Your task to perform on an android device: turn off priority inbox in the gmail app Image 0: 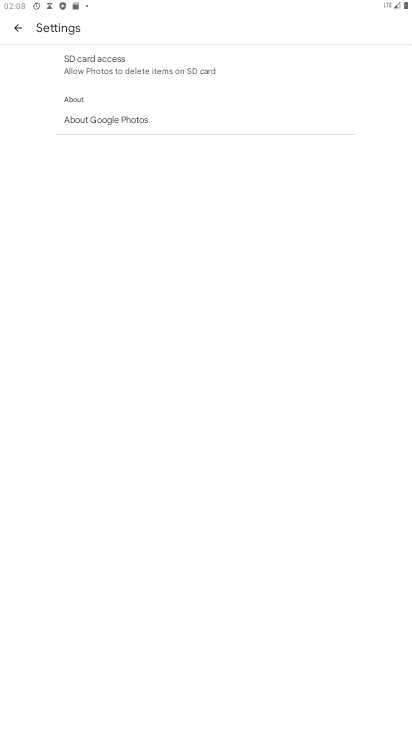
Step 0: press home button
Your task to perform on an android device: turn off priority inbox in the gmail app Image 1: 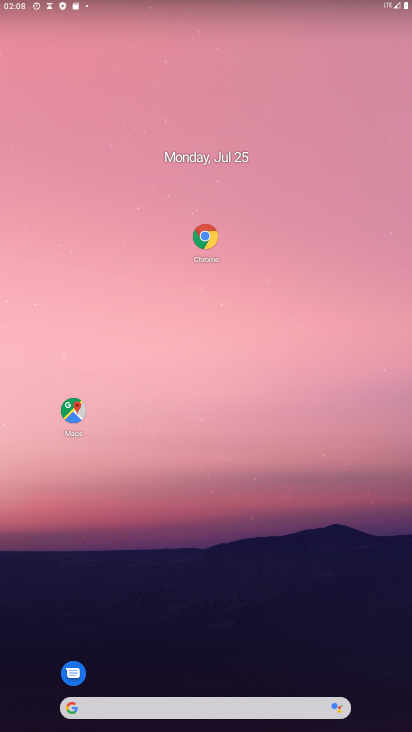
Step 1: click (262, 669)
Your task to perform on an android device: turn off priority inbox in the gmail app Image 2: 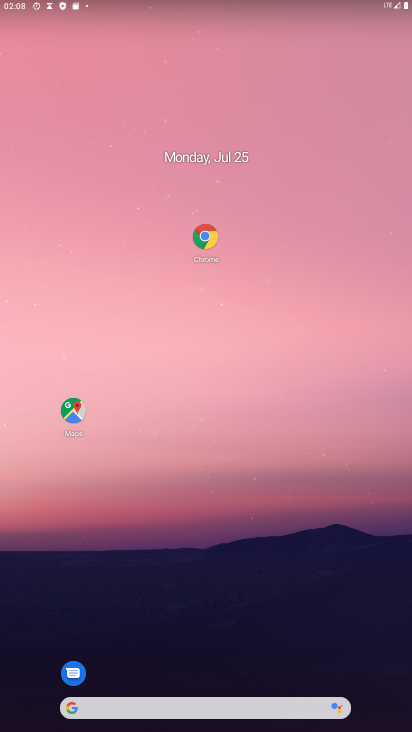
Step 2: drag from (250, 621) to (313, 11)
Your task to perform on an android device: turn off priority inbox in the gmail app Image 3: 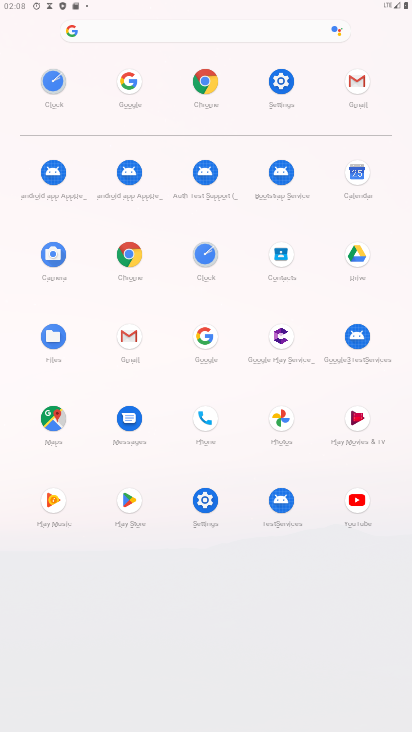
Step 3: click (130, 334)
Your task to perform on an android device: turn off priority inbox in the gmail app Image 4: 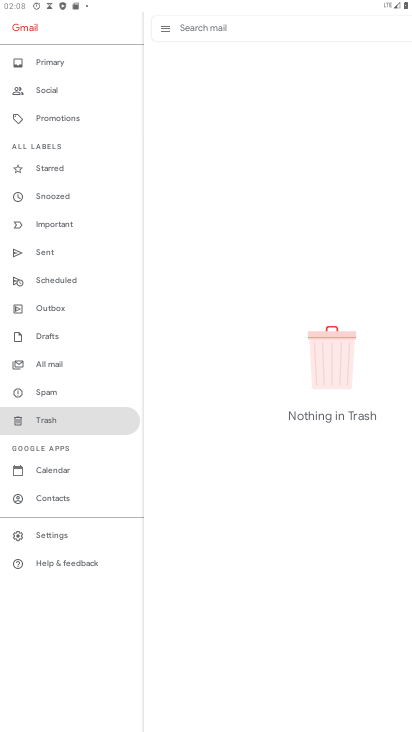
Step 4: click (58, 535)
Your task to perform on an android device: turn off priority inbox in the gmail app Image 5: 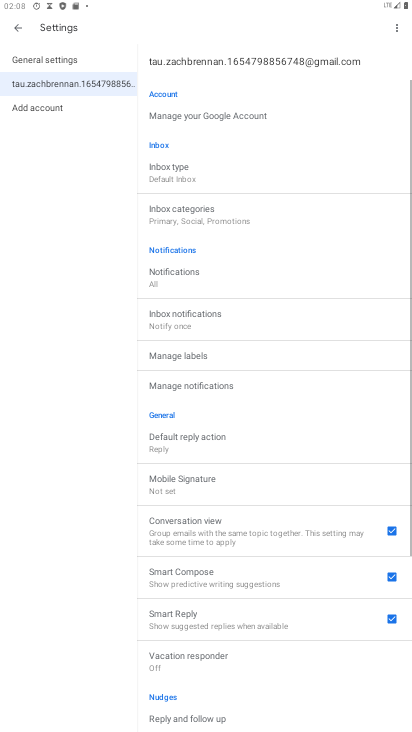
Step 5: click (58, 535)
Your task to perform on an android device: turn off priority inbox in the gmail app Image 6: 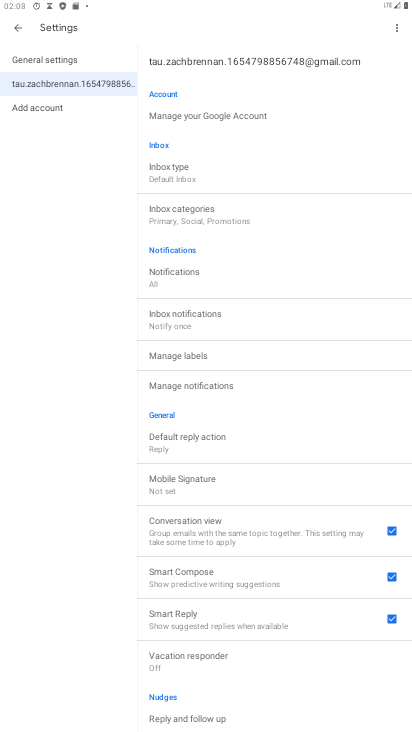
Step 6: click (208, 172)
Your task to perform on an android device: turn off priority inbox in the gmail app Image 7: 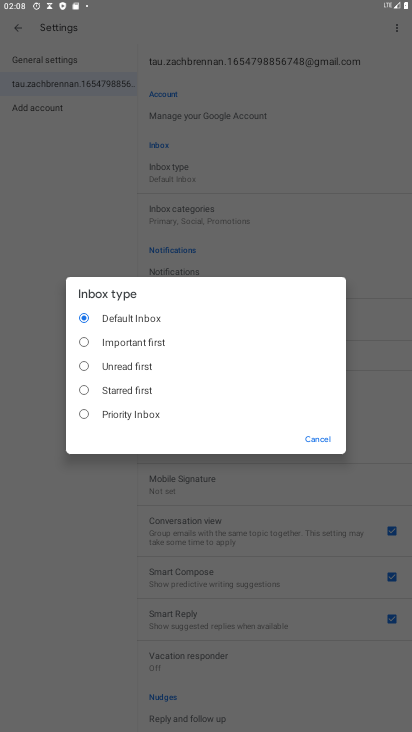
Step 7: task complete